Your task to perform on an android device: open app "Indeed Job Search" Image 0: 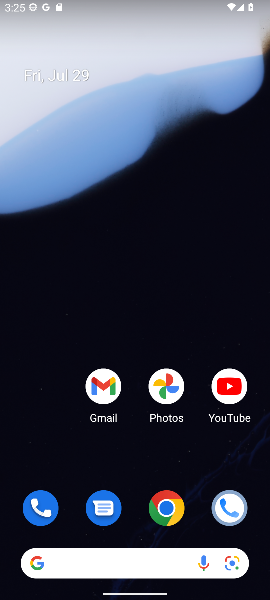
Step 0: drag from (225, 463) to (114, 108)
Your task to perform on an android device: open app "Indeed Job Search" Image 1: 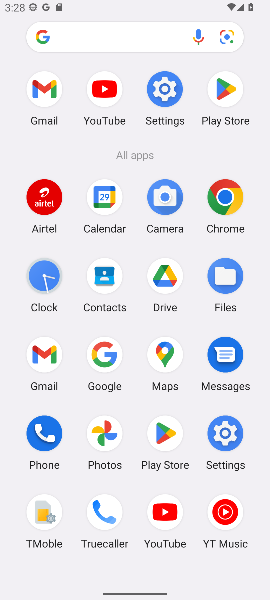
Step 1: click (161, 441)
Your task to perform on an android device: open app "Indeed Job Search" Image 2: 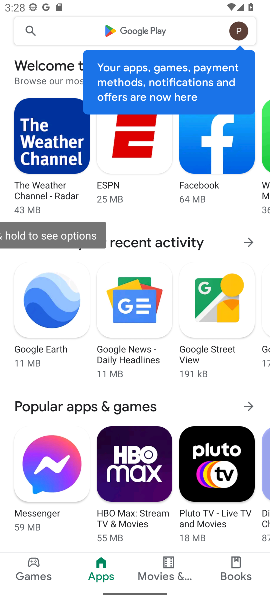
Step 2: click (81, 27)
Your task to perform on an android device: open app "Indeed Job Search" Image 3: 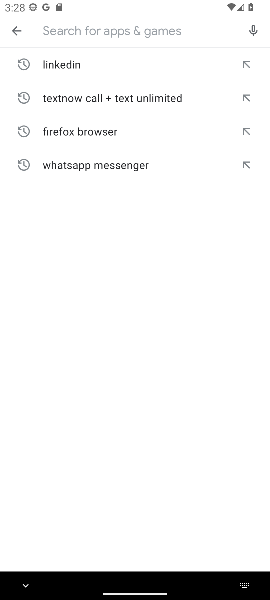
Step 3: type "Indeed Job Search"
Your task to perform on an android device: open app "Indeed Job Search" Image 4: 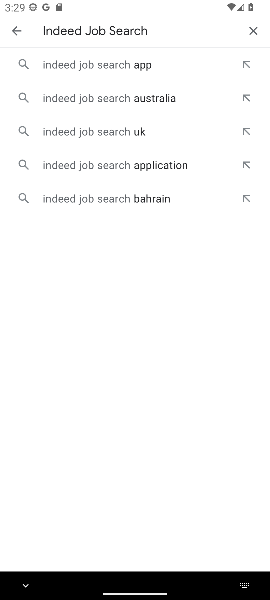
Step 4: click (58, 63)
Your task to perform on an android device: open app "Indeed Job Search" Image 5: 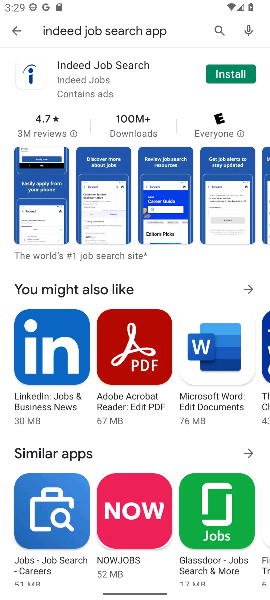
Step 5: task complete